Your task to perform on an android device: Go to network settings Image 0: 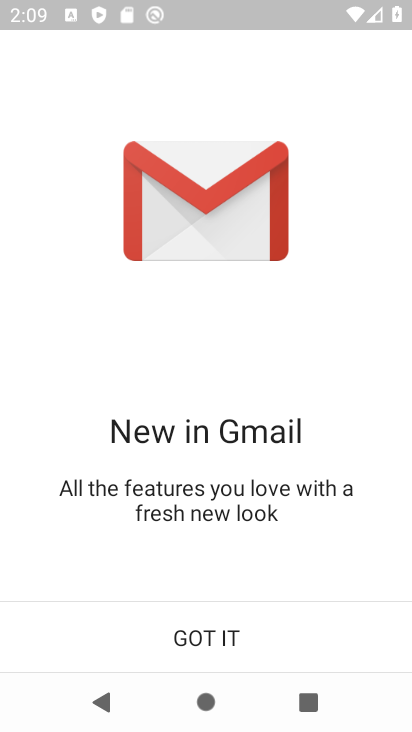
Step 0: press home button
Your task to perform on an android device: Go to network settings Image 1: 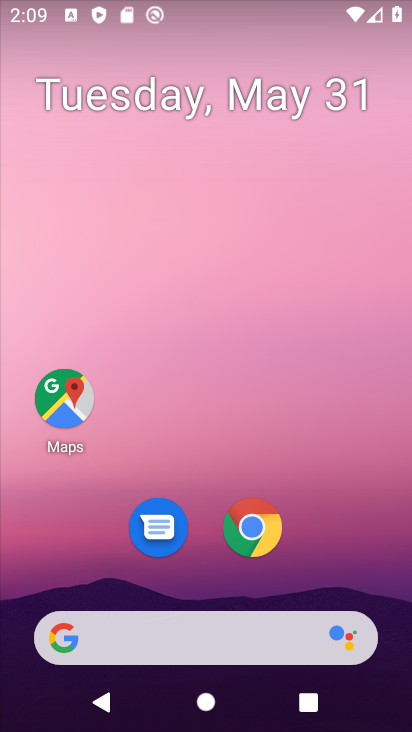
Step 1: drag from (393, 623) to (327, 126)
Your task to perform on an android device: Go to network settings Image 2: 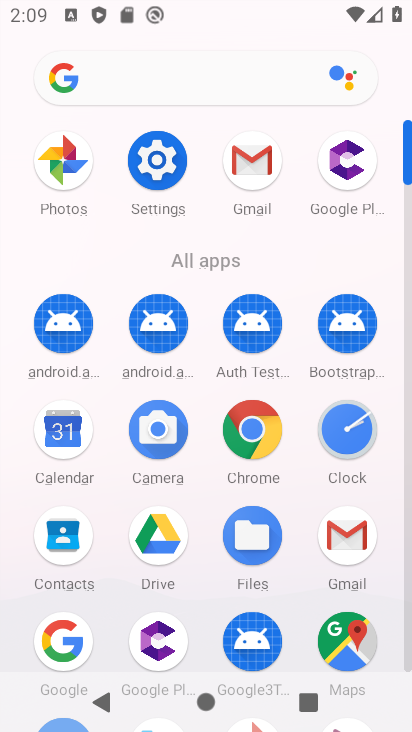
Step 2: click (408, 525)
Your task to perform on an android device: Go to network settings Image 3: 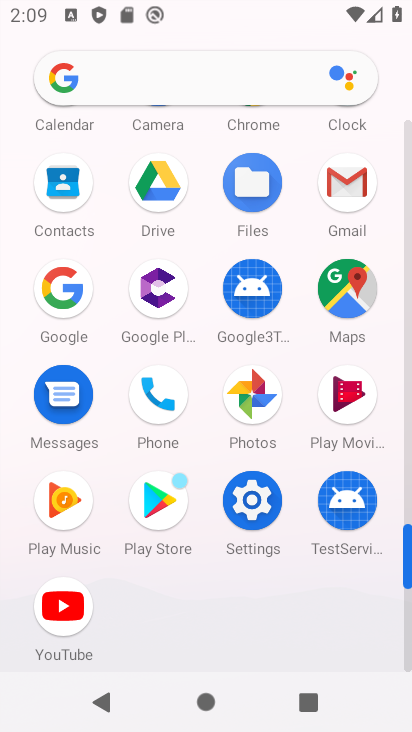
Step 3: click (251, 500)
Your task to perform on an android device: Go to network settings Image 4: 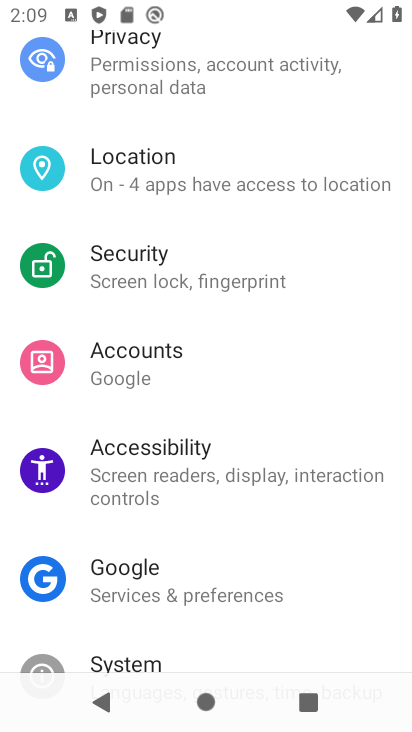
Step 4: drag from (354, 115) to (372, 412)
Your task to perform on an android device: Go to network settings Image 5: 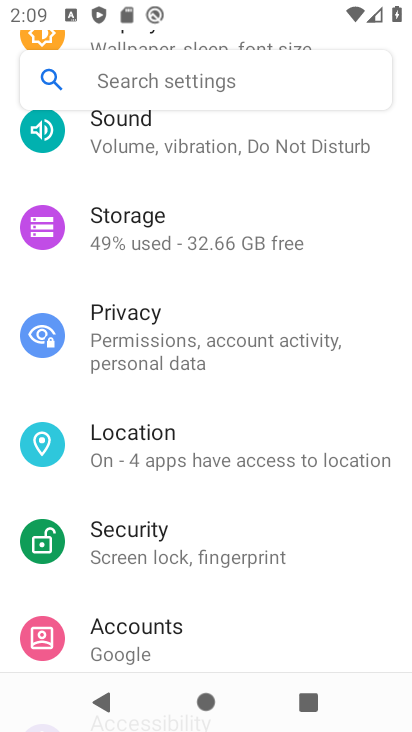
Step 5: drag from (374, 216) to (372, 506)
Your task to perform on an android device: Go to network settings Image 6: 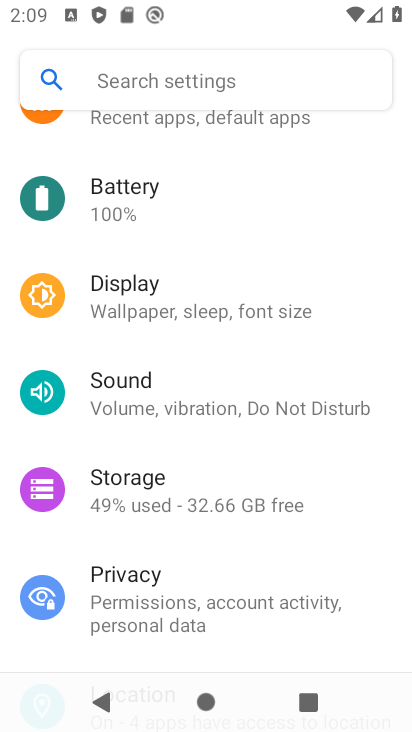
Step 6: drag from (364, 200) to (383, 488)
Your task to perform on an android device: Go to network settings Image 7: 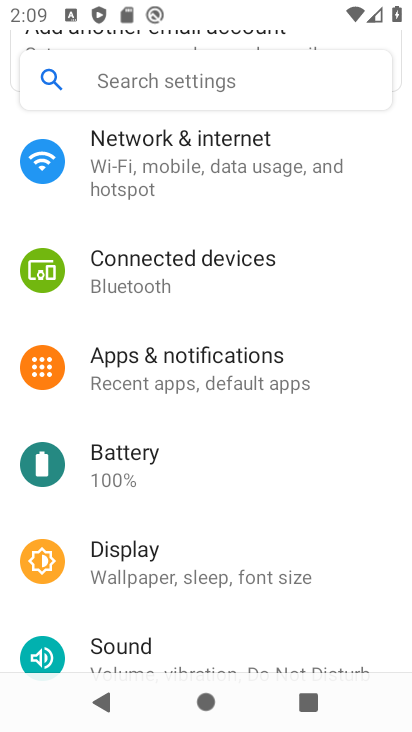
Step 7: click (136, 146)
Your task to perform on an android device: Go to network settings Image 8: 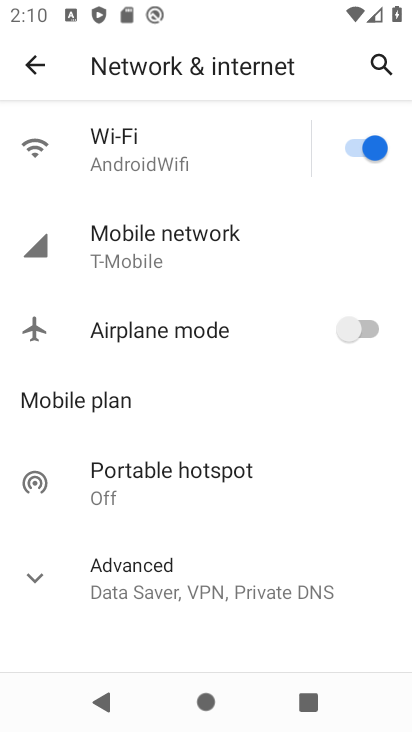
Step 8: click (127, 229)
Your task to perform on an android device: Go to network settings Image 9: 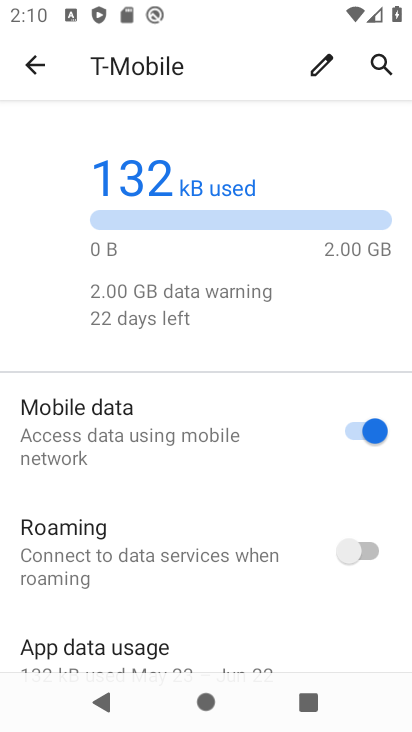
Step 9: drag from (250, 598) to (242, 327)
Your task to perform on an android device: Go to network settings Image 10: 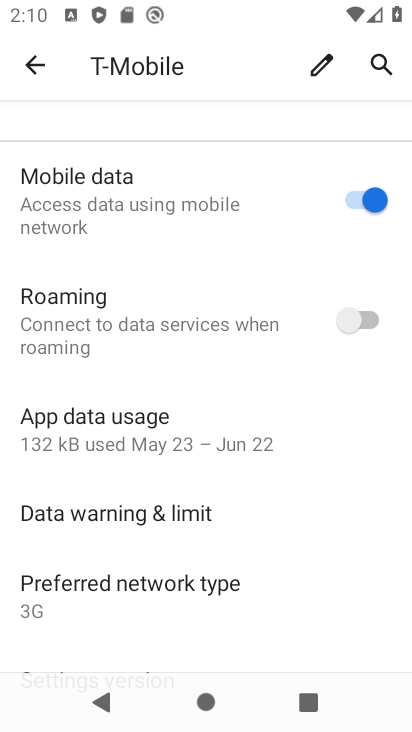
Step 10: drag from (278, 579) to (266, 378)
Your task to perform on an android device: Go to network settings Image 11: 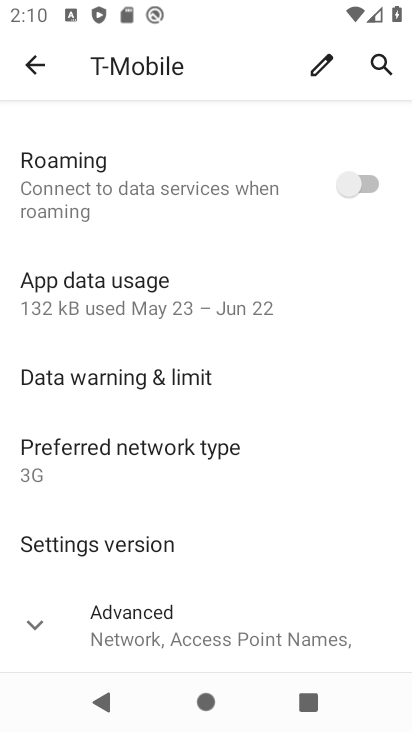
Step 11: click (25, 618)
Your task to perform on an android device: Go to network settings Image 12: 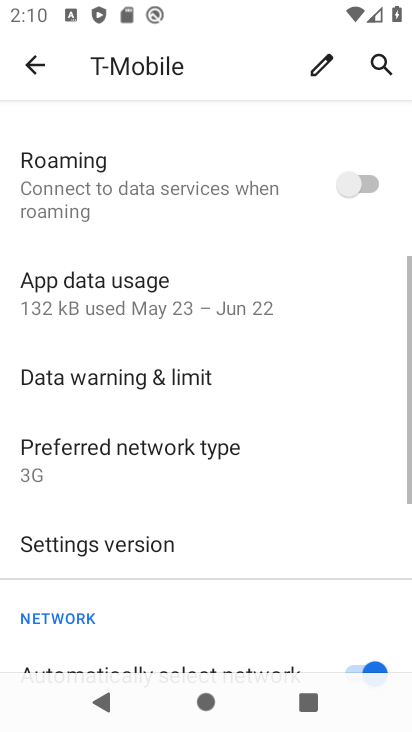
Step 12: task complete